Your task to perform on an android device: turn off airplane mode Image 0: 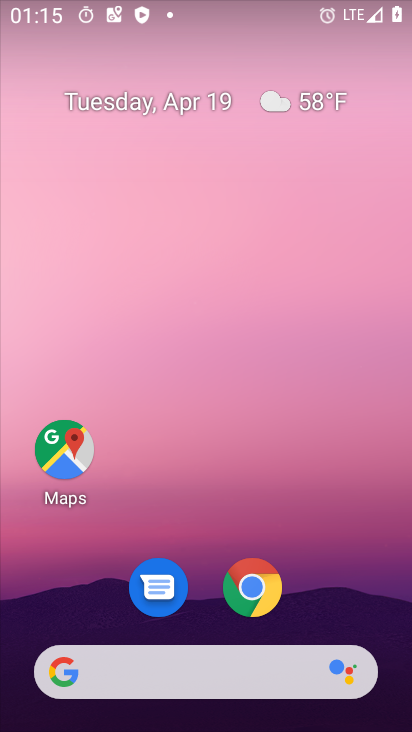
Step 0: drag from (365, 580) to (369, 151)
Your task to perform on an android device: turn off airplane mode Image 1: 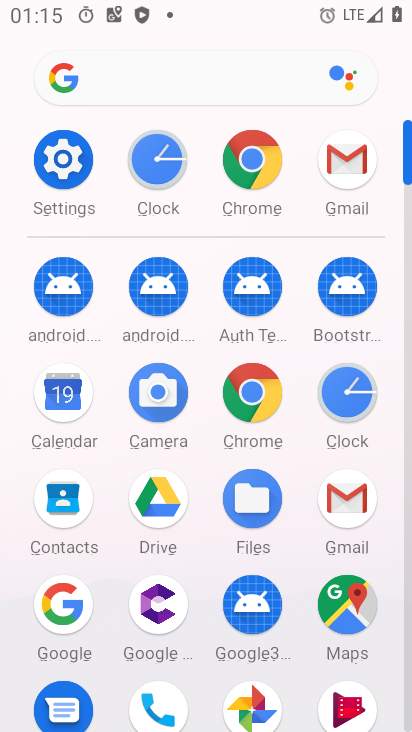
Step 1: click (57, 171)
Your task to perform on an android device: turn off airplane mode Image 2: 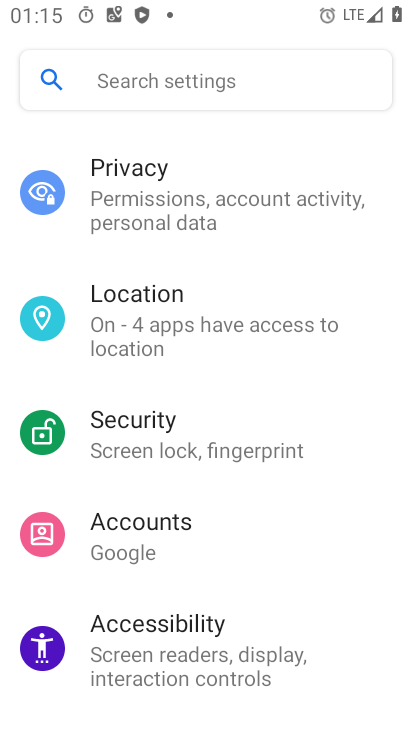
Step 2: drag from (359, 236) to (345, 589)
Your task to perform on an android device: turn off airplane mode Image 3: 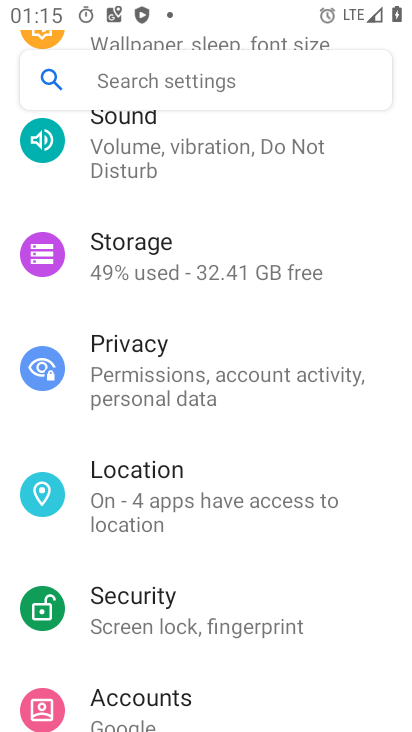
Step 3: drag from (359, 178) to (338, 562)
Your task to perform on an android device: turn off airplane mode Image 4: 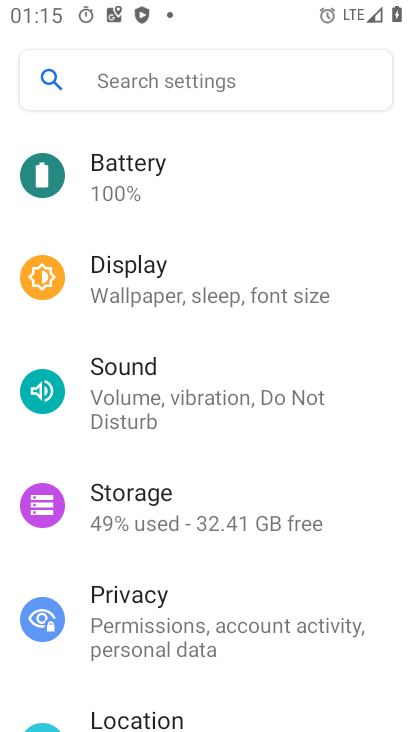
Step 4: drag from (305, 215) to (335, 616)
Your task to perform on an android device: turn off airplane mode Image 5: 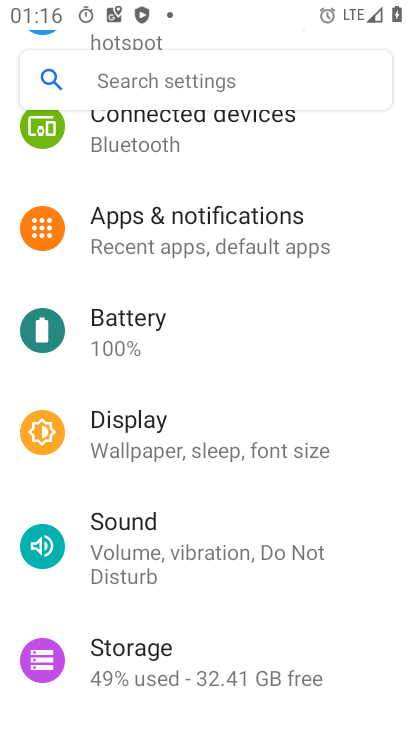
Step 5: drag from (329, 189) to (339, 627)
Your task to perform on an android device: turn off airplane mode Image 6: 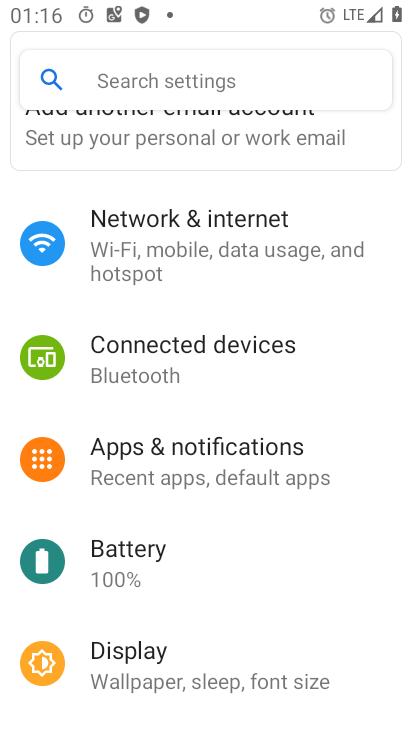
Step 6: click (273, 236)
Your task to perform on an android device: turn off airplane mode Image 7: 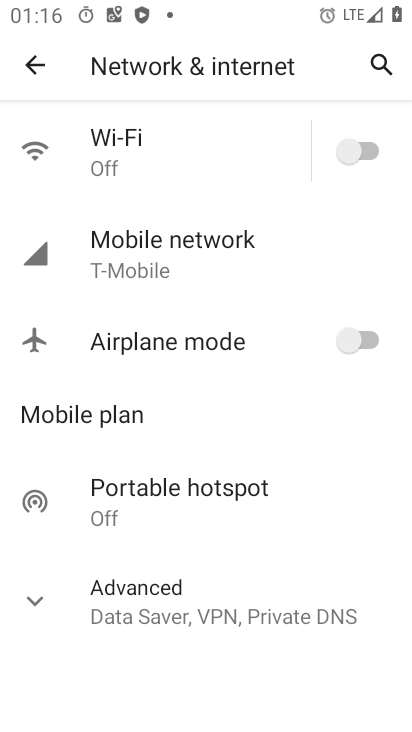
Step 7: task complete